Your task to perform on an android device: check data usage Image 0: 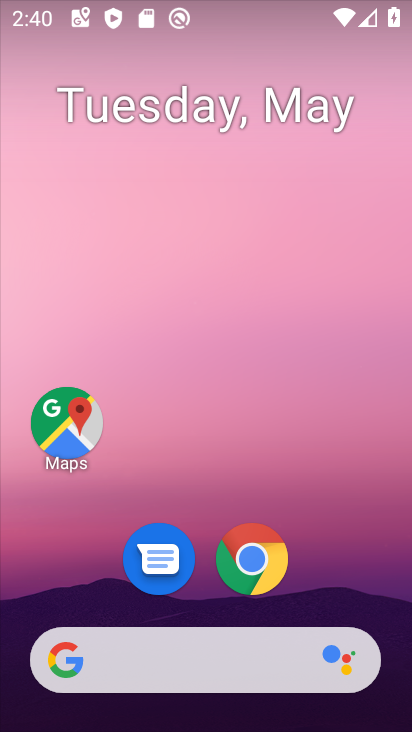
Step 0: drag from (195, 652) to (357, 31)
Your task to perform on an android device: check data usage Image 1: 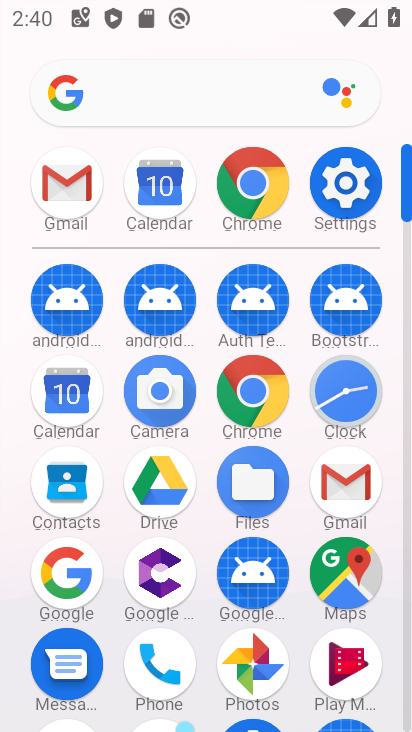
Step 1: click (360, 184)
Your task to perform on an android device: check data usage Image 2: 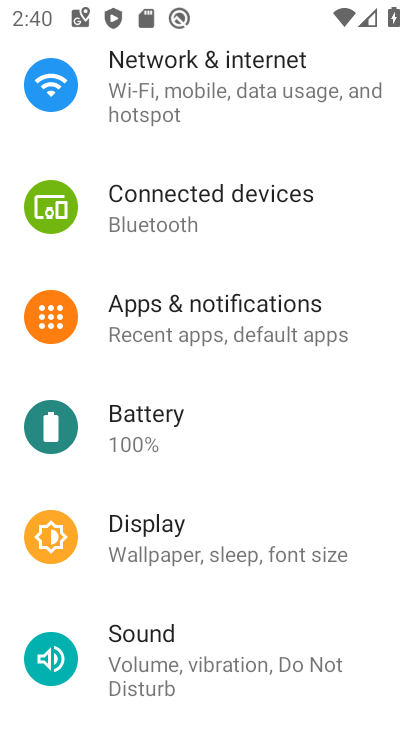
Step 2: click (208, 84)
Your task to perform on an android device: check data usage Image 3: 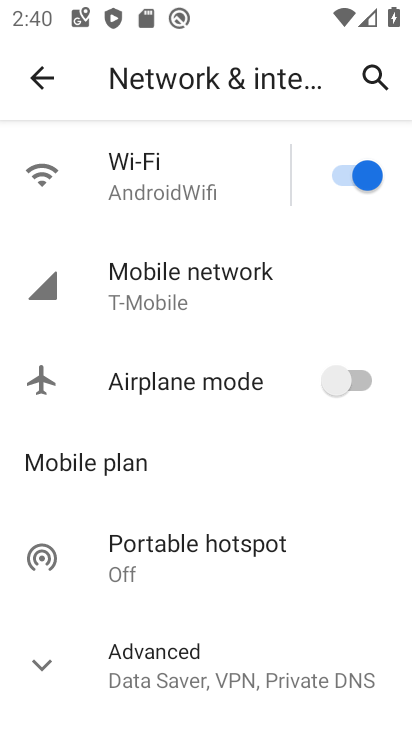
Step 3: click (169, 187)
Your task to perform on an android device: check data usage Image 4: 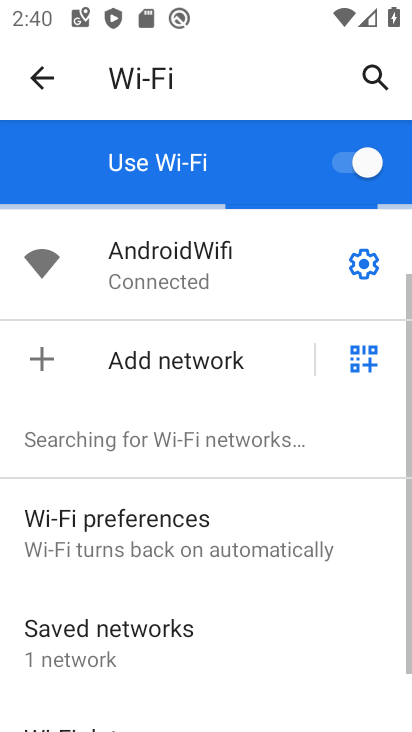
Step 4: drag from (160, 586) to (274, 132)
Your task to perform on an android device: check data usage Image 5: 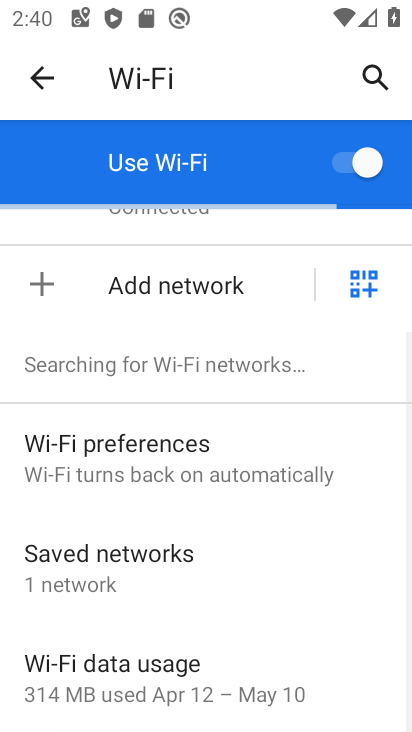
Step 5: click (142, 651)
Your task to perform on an android device: check data usage Image 6: 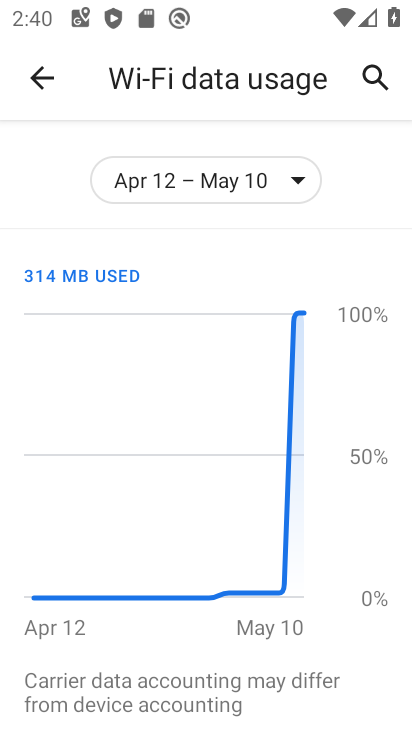
Step 6: task complete